Your task to perform on an android device: toggle improve location accuracy Image 0: 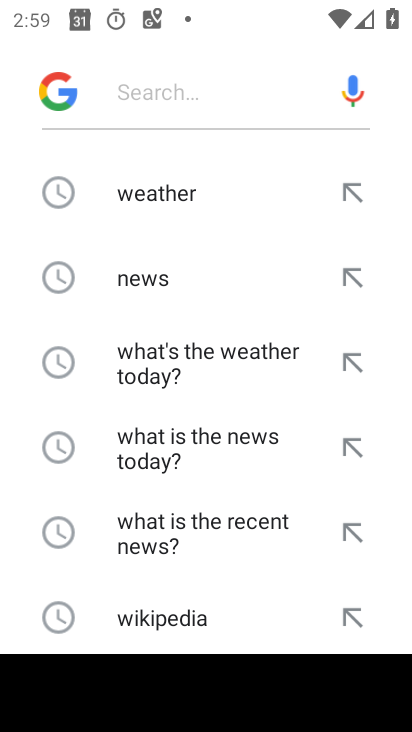
Step 0: press home button
Your task to perform on an android device: toggle improve location accuracy Image 1: 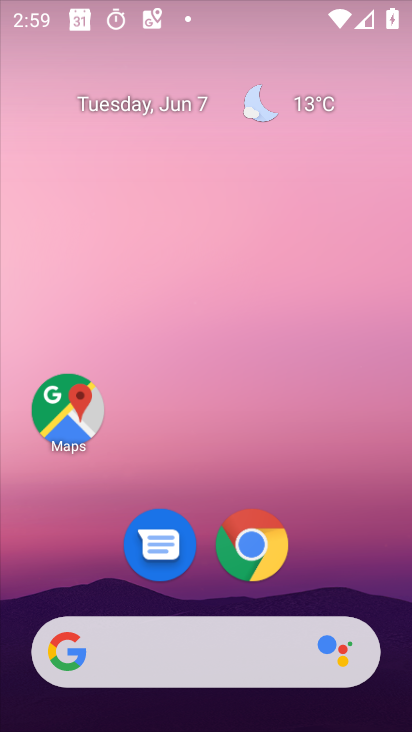
Step 1: drag from (367, 469) to (177, 19)
Your task to perform on an android device: toggle improve location accuracy Image 2: 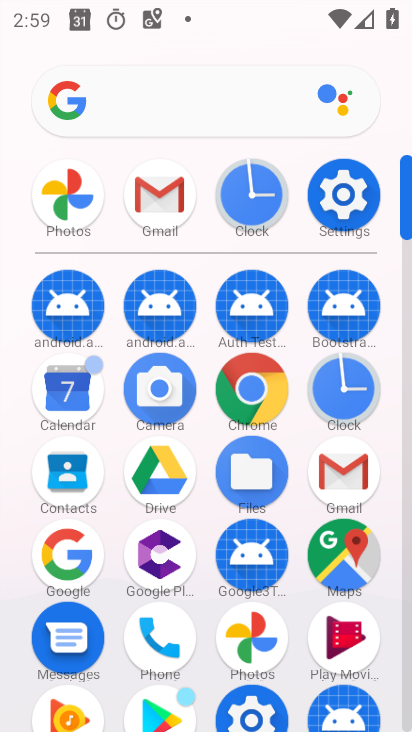
Step 2: click (345, 206)
Your task to perform on an android device: toggle improve location accuracy Image 3: 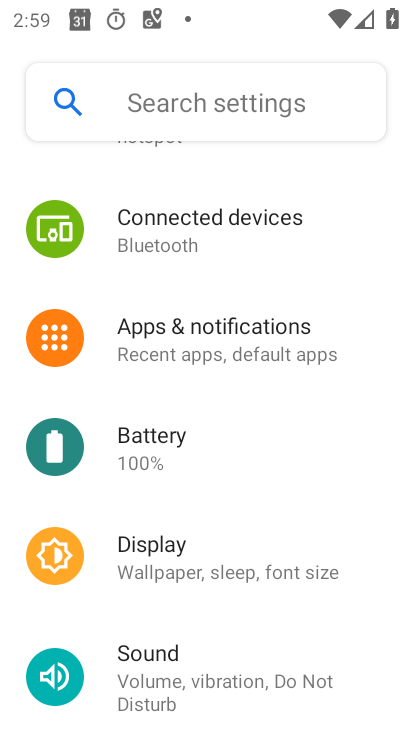
Step 3: drag from (262, 622) to (270, 119)
Your task to perform on an android device: toggle improve location accuracy Image 4: 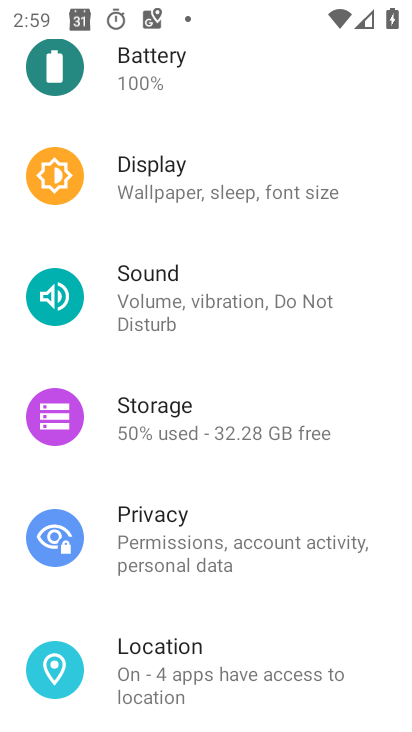
Step 4: click (182, 653)
Your task to perform on an android device: toggle improve location accuracy Image 5: 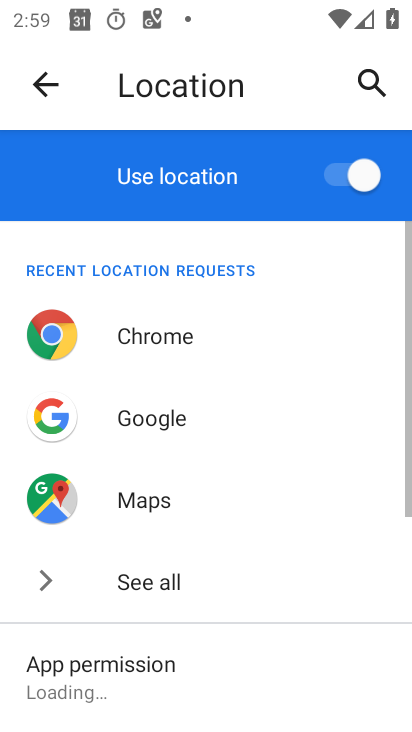
Step 5: drag from (291, 440) to (232, 88)
Your task to perform on an android device: toggle improve location accuracy Image 6: 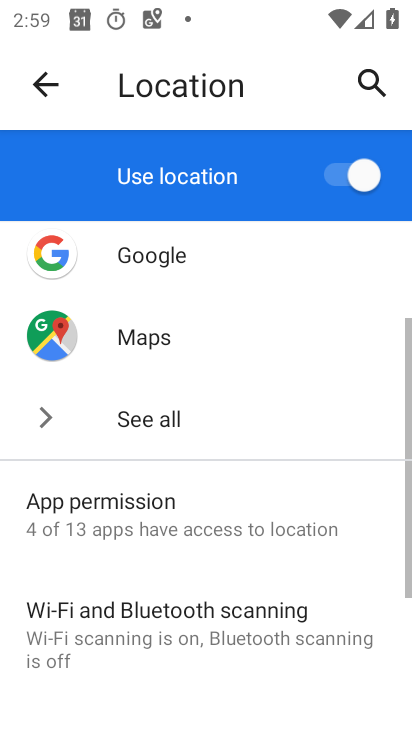
Step 6: drag from (272, 639) to (248, 195)
Your task to perform on an android device: toggle improve location accuracy Image 7: 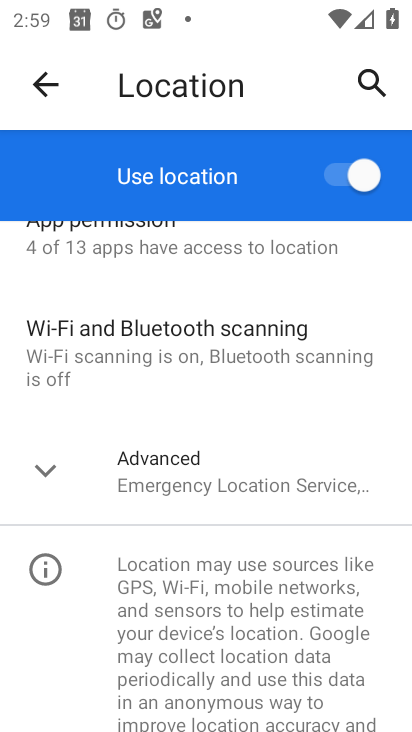
Step 7: click (220, 472)
Your task to perform on an android device: toggle improve location accuracy Image 8: 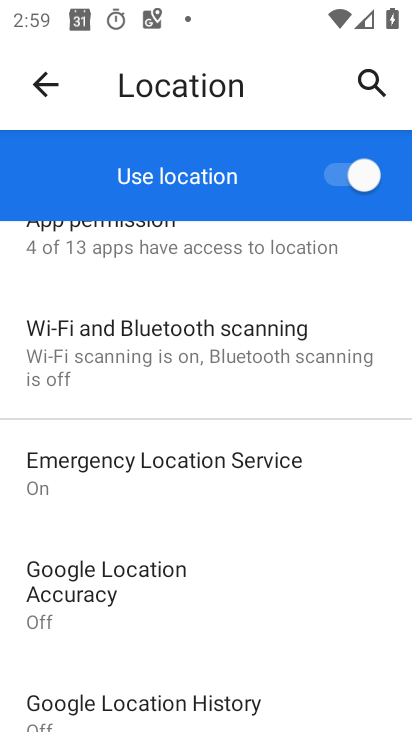
Step 8: click (161, 587)
Your task to perform on an android device: toggle improve location accuracy Image 9: 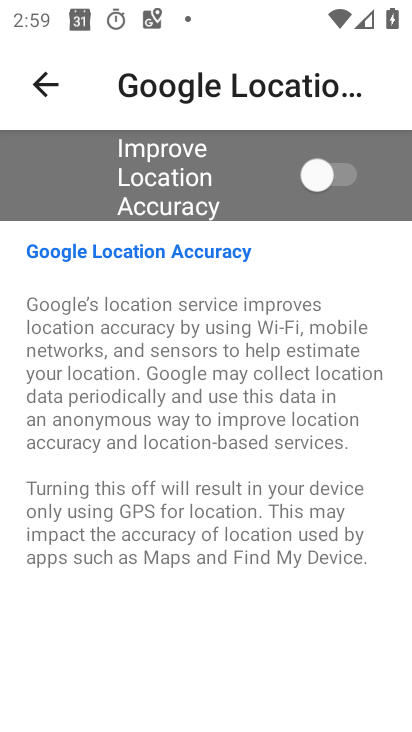
Step 9: click (347, 166)
Your task to perform on an android device: toggle improve location accuracy Image 10: 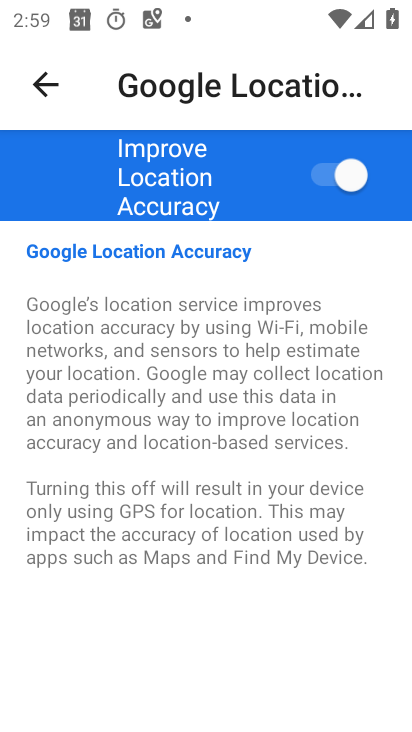
Step 10: task complete